Your task to perform on an android device: Open Google Chrome Image 0: 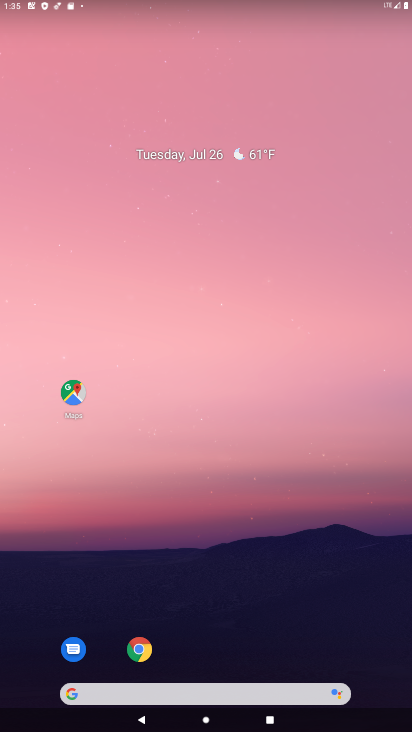
Step 0: click (136, 647)
Your task to perform on an android device: Open Google Chrome Image 1: 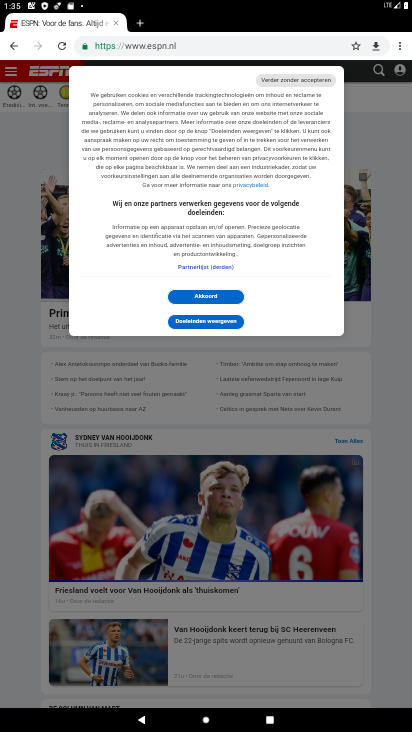
Step 1: task complete